Your task to perform on an android device: Open ESPN.com Image 0: 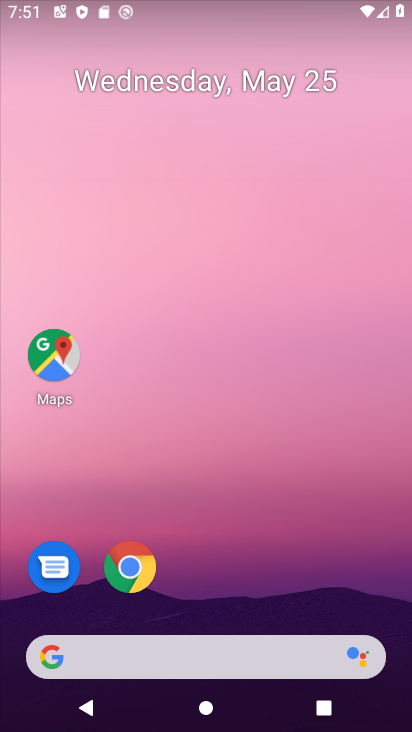
Step 0: click (138, 580)
Your task to perform on an android device: Open ESPN.com Image 1: 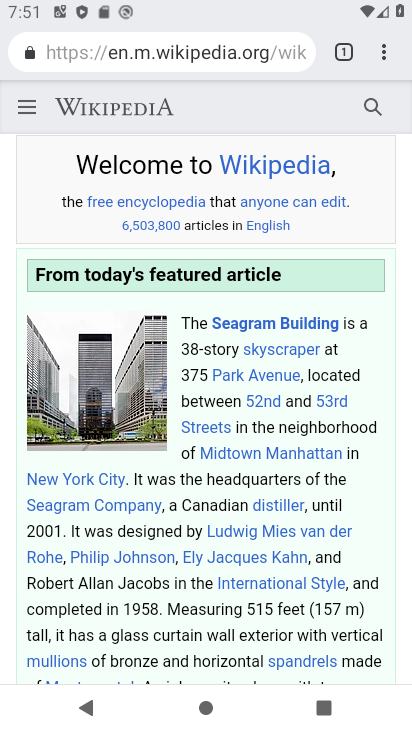
Step 1: click (201, 48)
Your task to perform on an android device: Open ESPN.com Image 2: 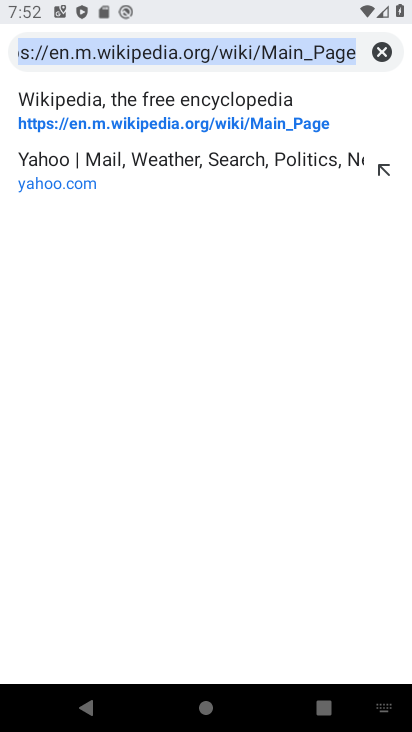
Step 2: type "espn.com"
Your task to perform on an android device: Open ESPN.com Image 3: 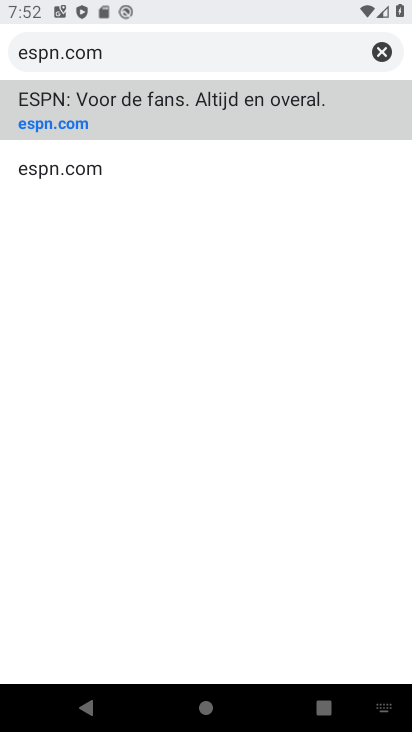
Step 3: click (236, 114)
Your task to perform on an android device: Open ESPN.com Image 4: 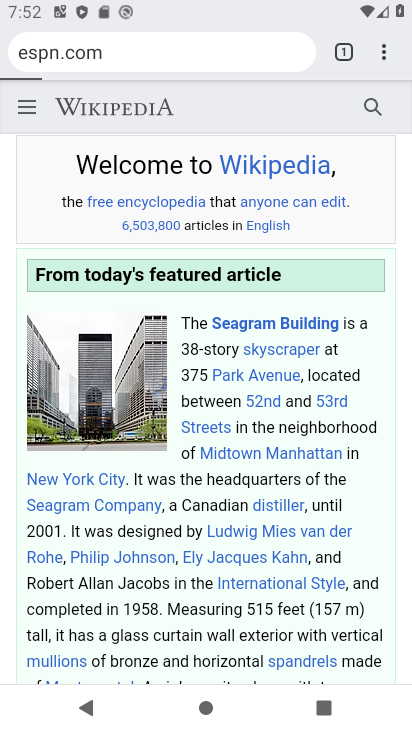
Step 4: task complete